Your task to perform on an android device: toggle data saver in the chrome app Image 0: 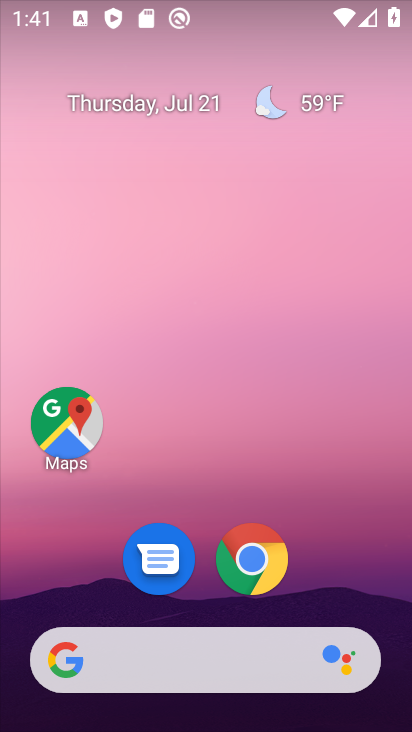
Step 0: drag from (188, 690) to (161, 125)
Your task to perform on an android device: toggle data saver in the chrome app Image 1: 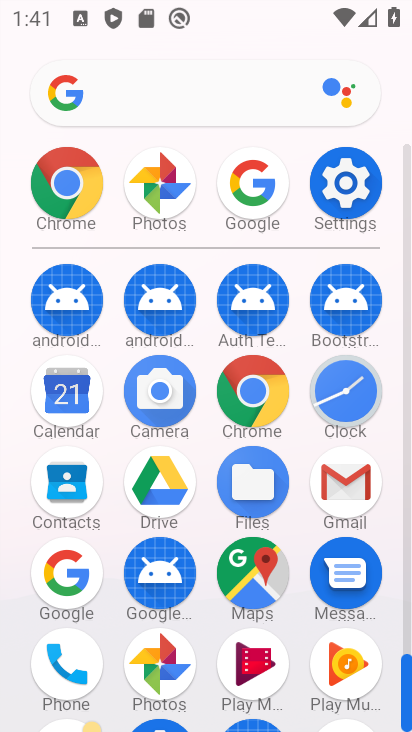
Step 1: click (246, 404)
Your task to perform on an android device: toggle data saver in the chrome app Image 2: 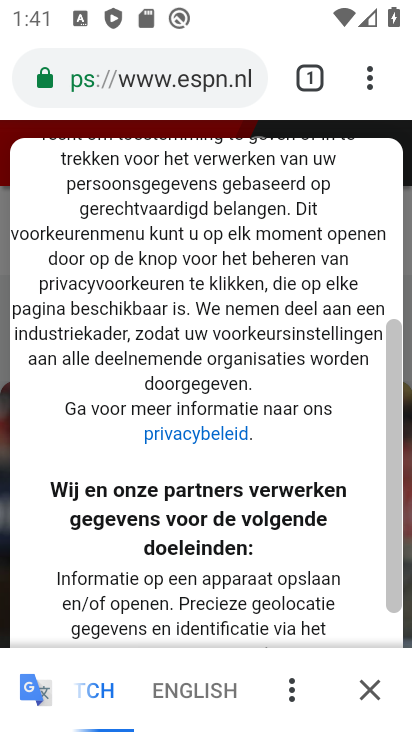
Step 2: click (387, 51)
Your task to perform on an android device: toggle data saver in the chrome app Image 3: 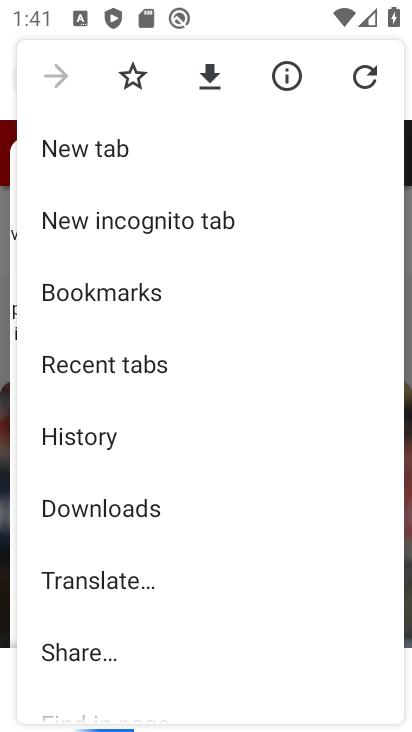
Step 3: drag from (127, 622) to (52, 46)
Your task to perform on an android device: toggle data saver in the chrome app Image 4: 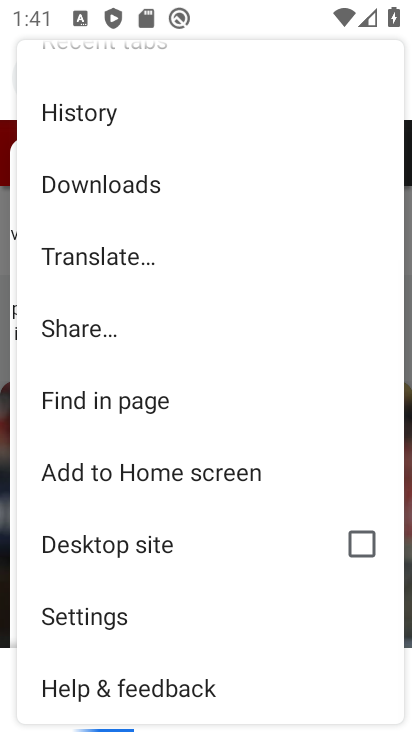
Step 4: click (111, 625)
Your task to perform on an android device: toggle data saver in the chrome app Image 5: 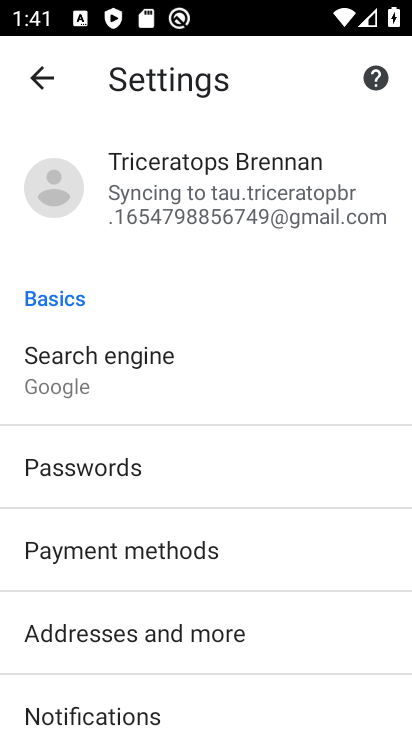
Step 5: drag from (113, 627) to (137, 63)
Your task to perform on an android device: toggle data saver in the chrome app Image 6: 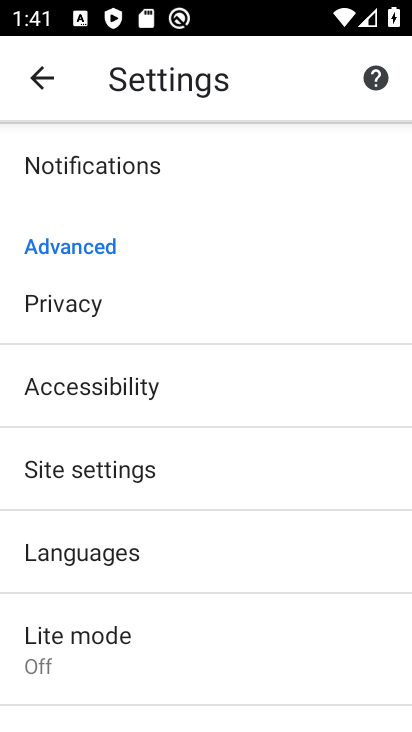
Step 6: click (87, 678)
Your task to perform on an android device: toggle data saver in the chrome app Image 7: 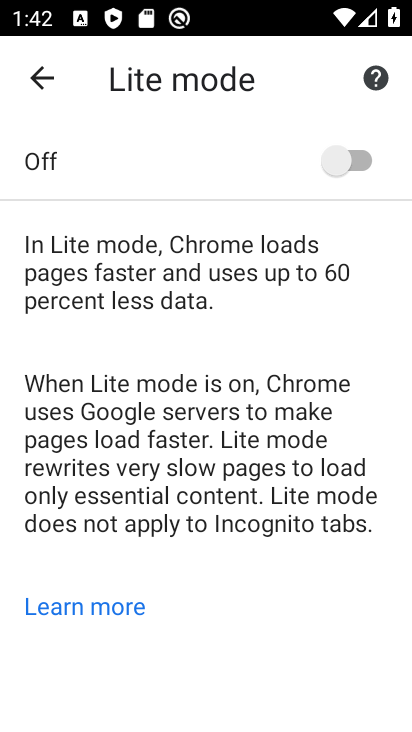
Step 7: click (358, 170)
Your task to perform on an android device: toggle data saver in the chrome app Image 8: 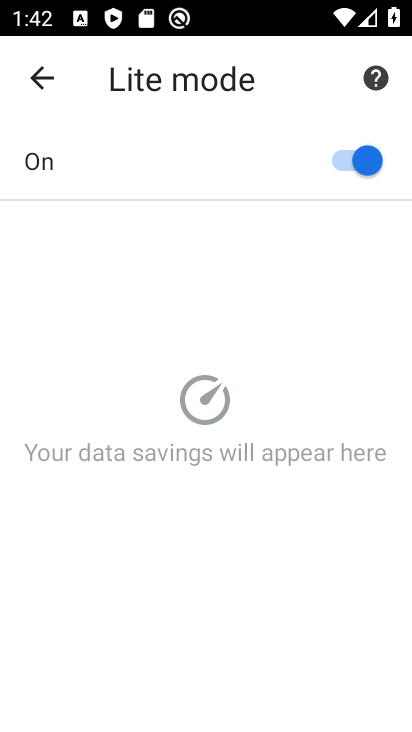
Step 8: task complete